Your task to perform on an android device: add a contact in the contacts app Image 0: 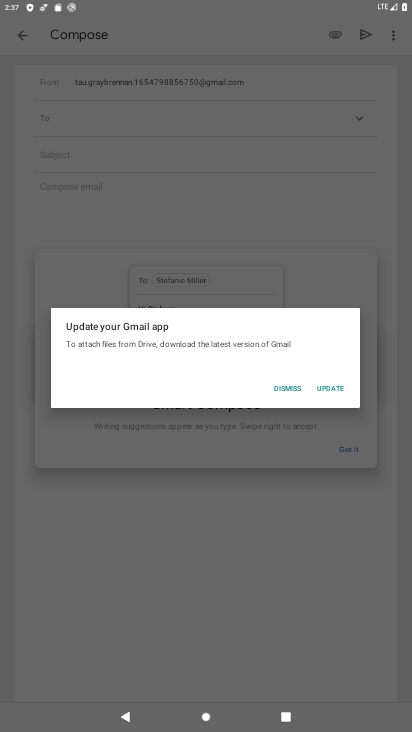
Step 0: press home button
Your task to perform on an android device: add a contact in the contacts app Image 1: 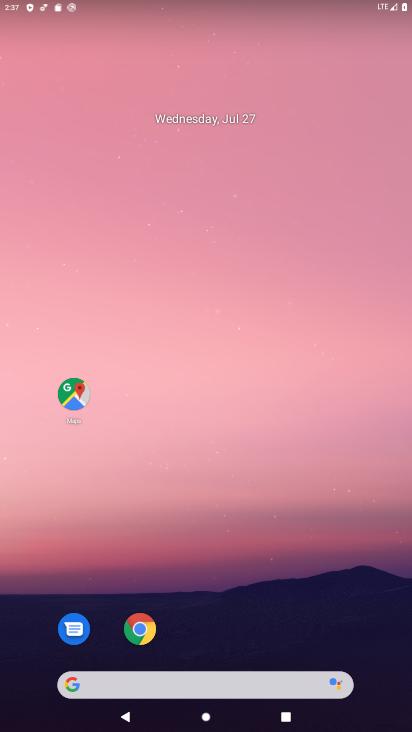
Step 1: drag from (270, 637) to (285, 46)
Your task to perform on an android device: add a contact in the contacts app Image 2: 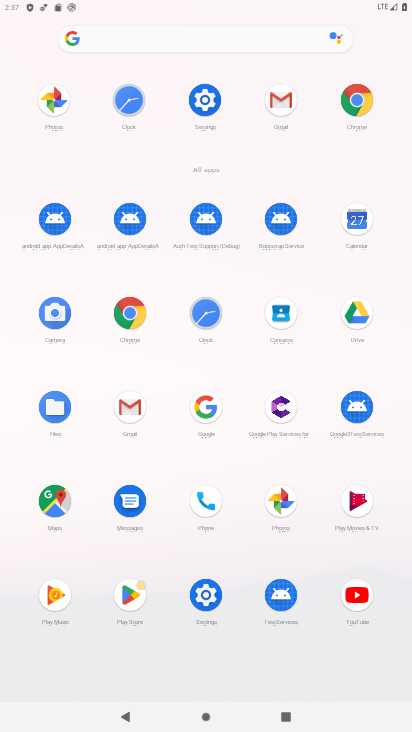
Step 2: click (290, 330)
Your task to perform on an android device: add a contact in the contacts app Image 3: 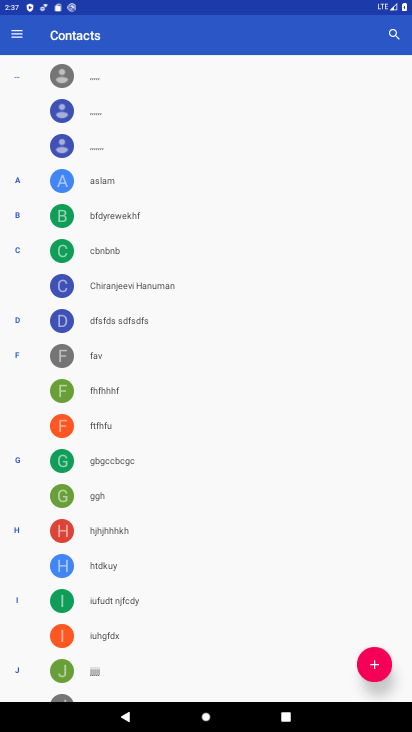
Step 3: click (373, 678)
Your task to perform on an android device: add a contact in the contacts app Image 4: 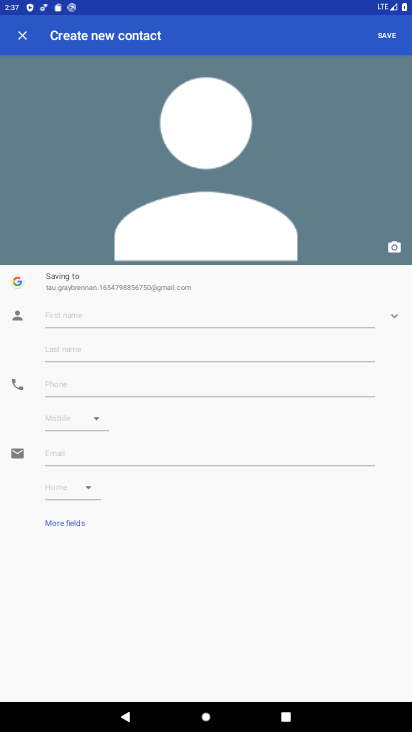
Step 4: click (151, 310)
Your task to perform on an android device: add a contact in the contacts app Image 5: 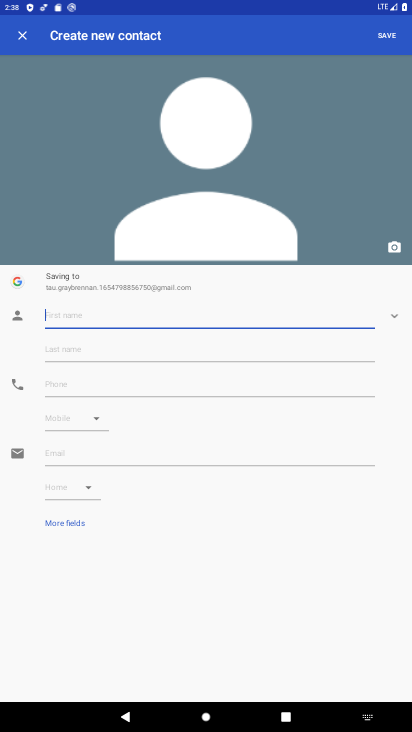
Step 5: type "iuygtfgb"
Your task to perform on an android device: add a contact in the contacts app Image 6: 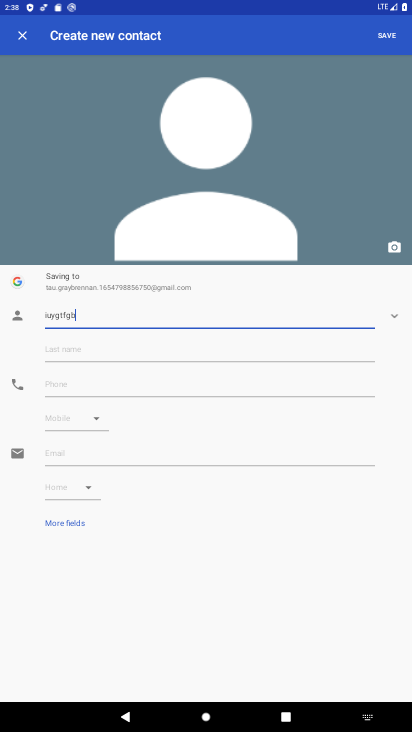
Step 6: click (229, 389)
Your task to perform on an android device: add a contact in the contacts app Image 7: 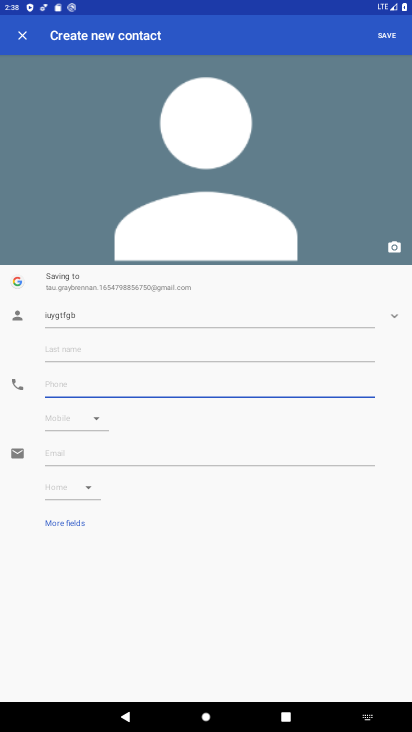
Step 7: type "876567899"
Your task to perform on an android device: add a contact in the contacts app Image 8: 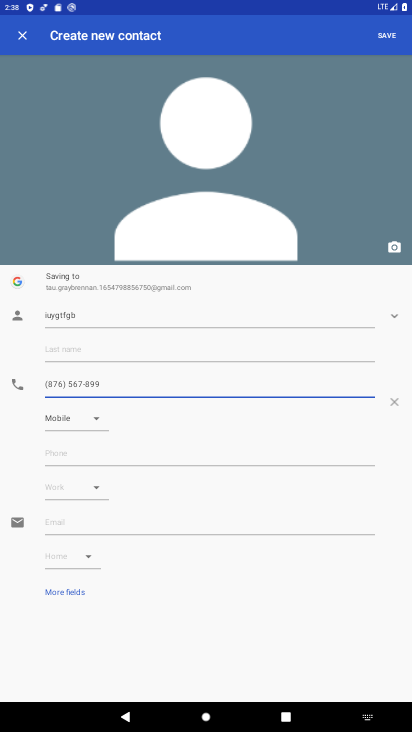
Step 8: click (384, 36)
Your task to perform on an android device: add a contact in the contacts app Image 9: 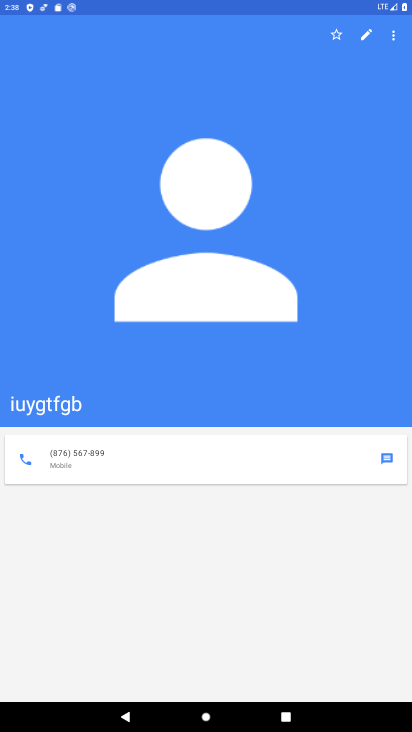
Step 9: task complete